Your task to perform on an android device: Open Chrome and go to settings Image 0: 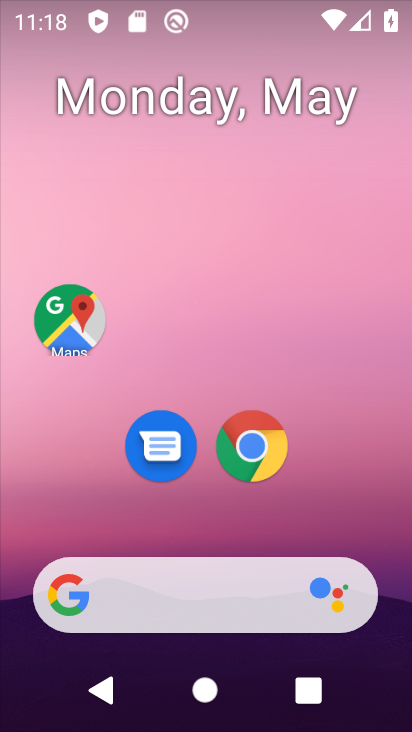
Step 0: click (261, 455)
Your task to perform on an android device: Open Chrome and go to settings Image 1: 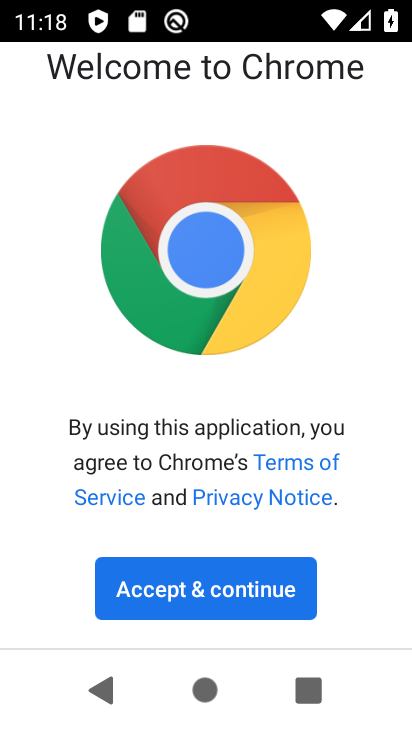
Step 1: click (213, 598)
Your task to perform on an android device: Open Chrome and go to settings Image 2: 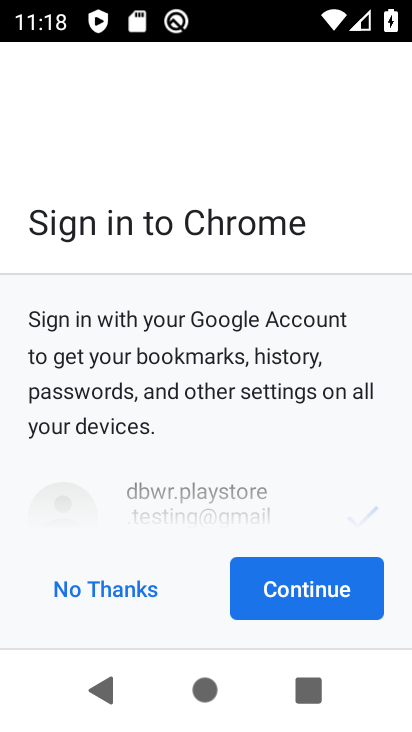
Step 2: click (303, 600)
Your task to perform on an android device: Open Chrome and go to settings Image 3: 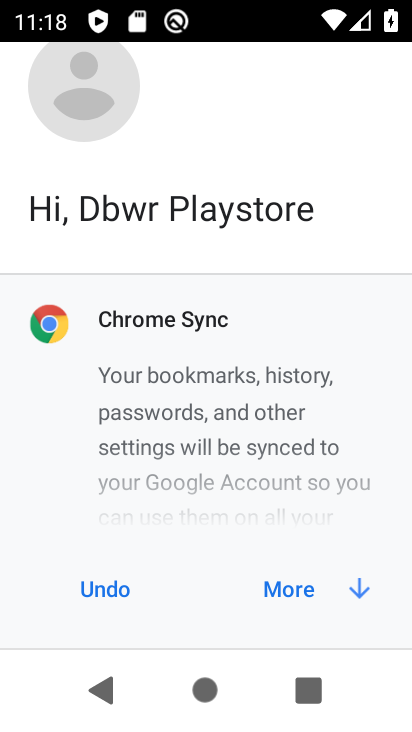
Step 3: click (350, 588)
Your task to perform on an android device: Open Chrome and go to settings Image 4: 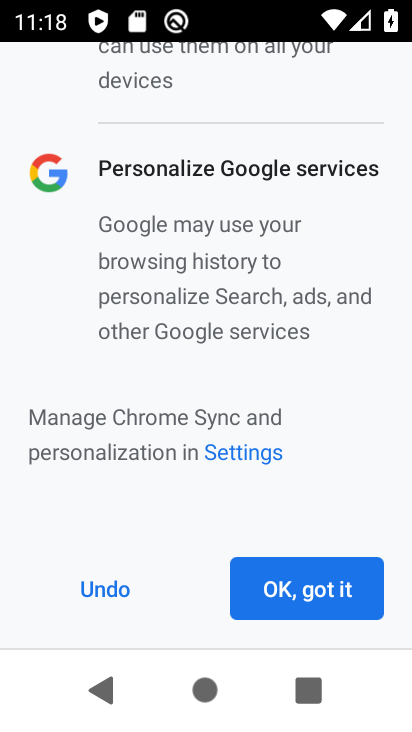
Step 4: click (350, 588)
Your task to perform on an android device: Open Chrome and go to settings Image 5: 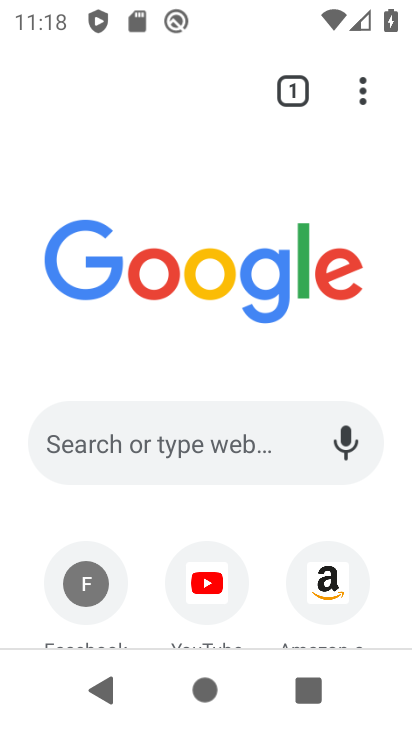
Step 5: click (360, 90)
Your task to perform on an android device: Open Chrome and go to settings Image 6: 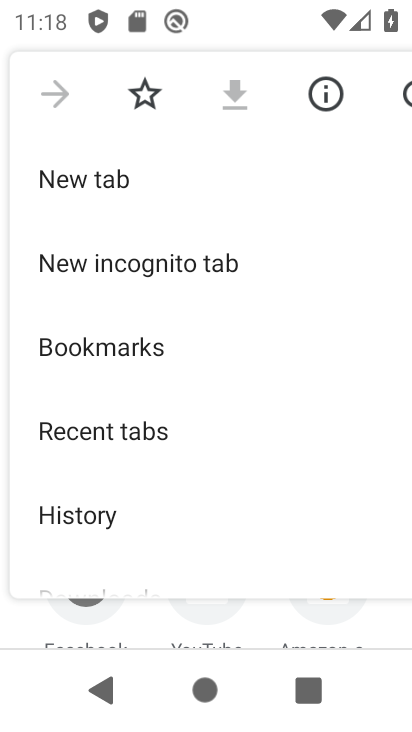
Step 6: drag from (275, 494) to (178, 208)
Your task to perform on an android device: Open Chrome and go to settings Image 7: 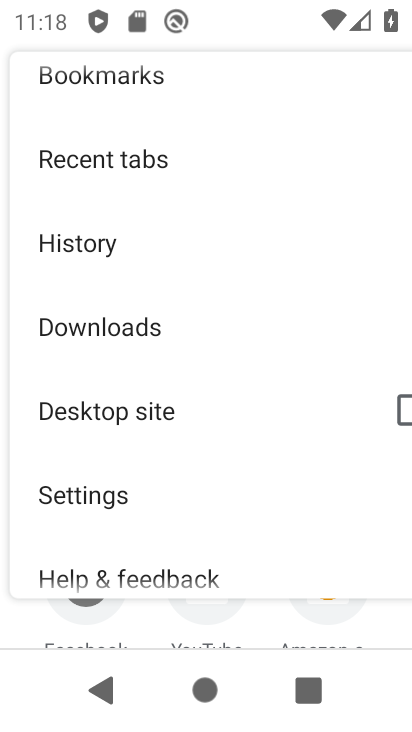
Step 7: click (85, 495)
Your task to perform on an android device: Open Chrome and go to settings Image 8: 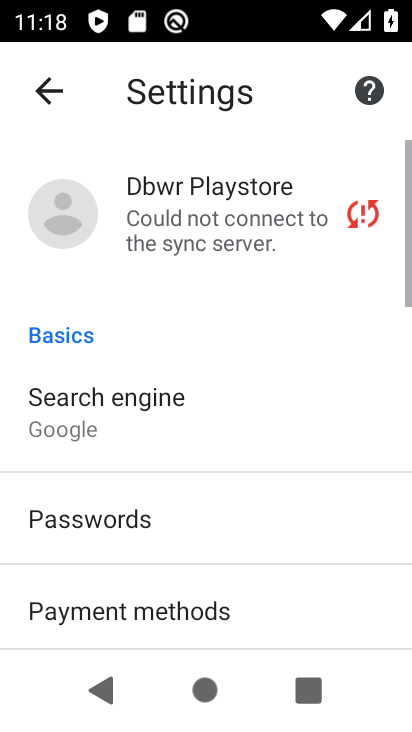
Step 8: click (89, 490)
Your task to perform on an android device: Open Chrome and go to settings Image 9: 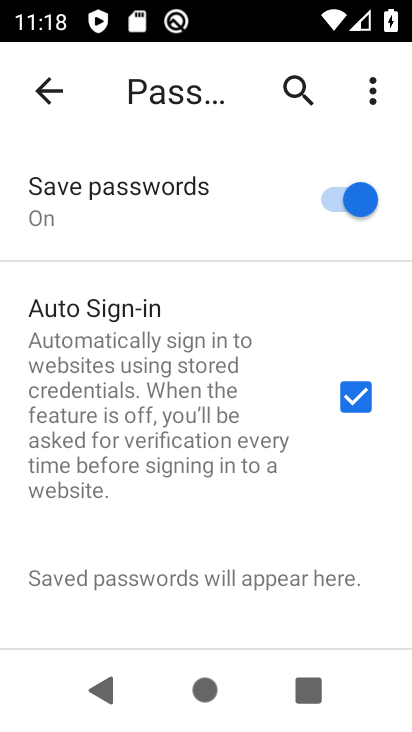
Step 9: task complete